Your task to perform on an android device: Open Google Image 0: 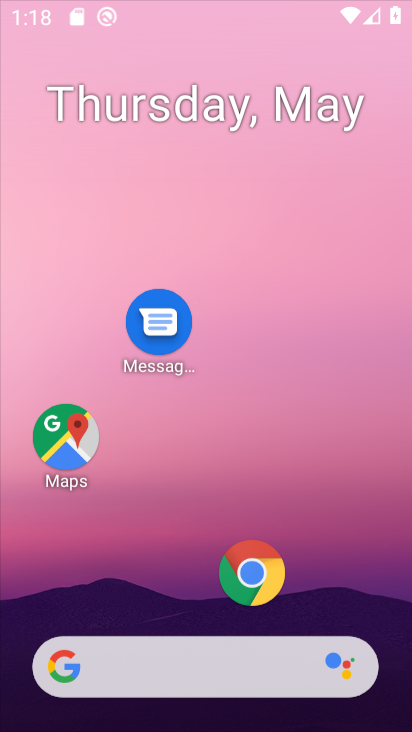
Step 0: click (211, 28)
Your task to perform on an android device: Open Google Image 1: 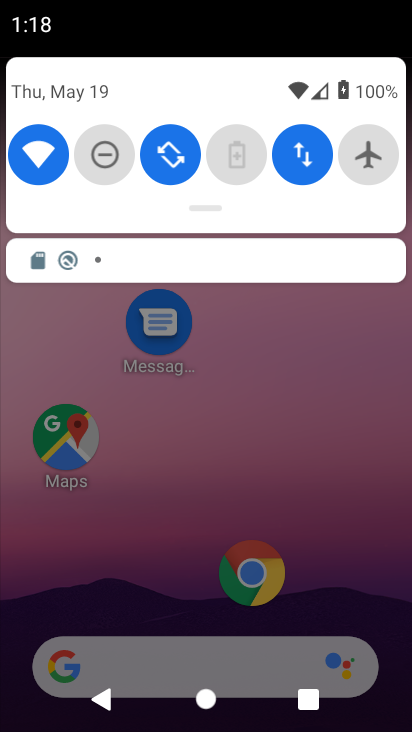
Step 1: drag from (201, 606) to (215, 108)
Your task to perform on an android device: Open Google Image 2: 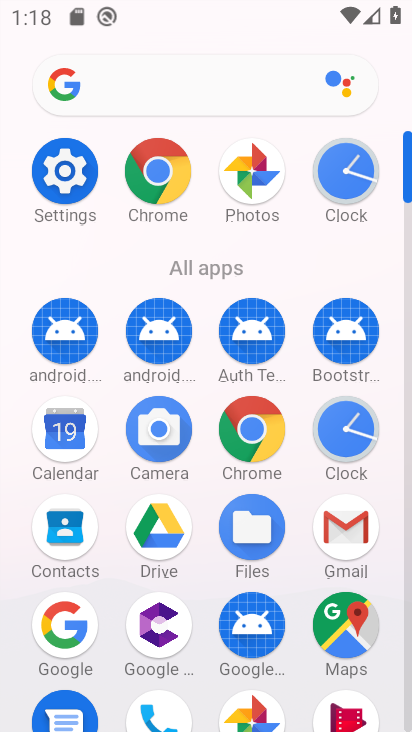
Step 2: drag from (207, 668) to (202, 245)
Your task to perform on an android device: Open Google Image 3: 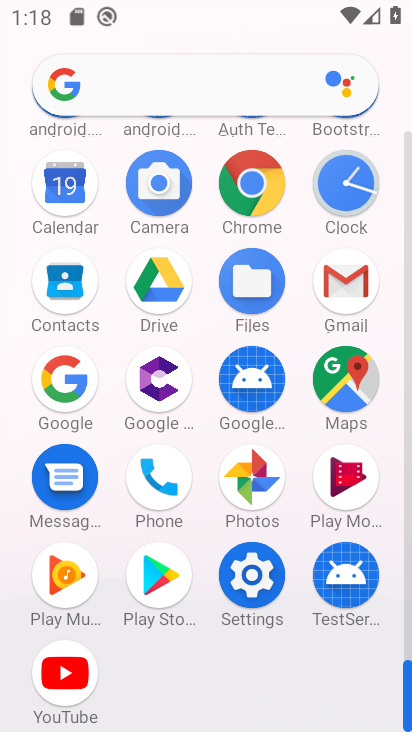
Step 3: click (79, 377)
Your task to perform on an android device: Open Google Image 4: 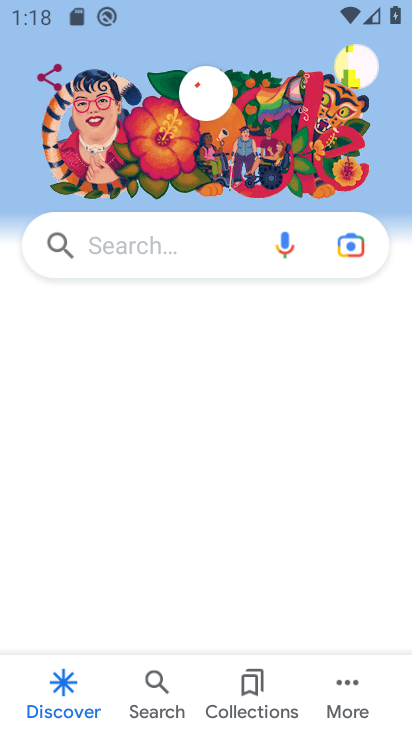
Step 4: task complete